Your task to perform on an android device: change the clock display to show seconds Image 0: 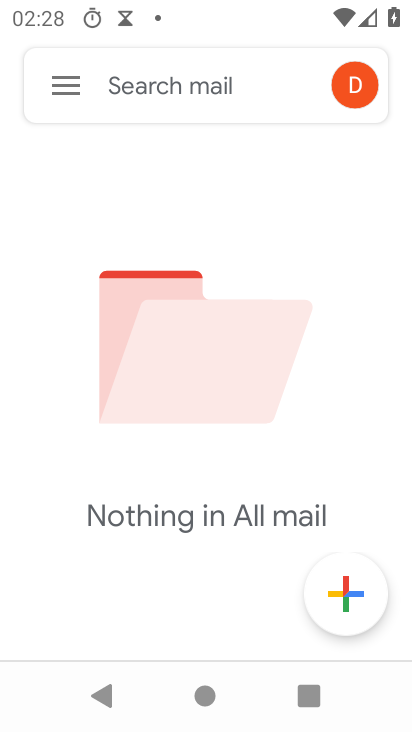
Step 0: press home button
Your task to perform on an android device: change the clock display to show seconds Image 1: 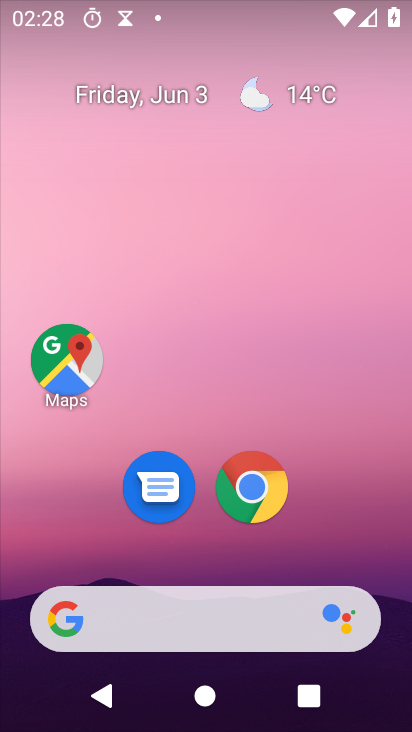
Step 1: drag from (320, 378) to (53, 4)
Your task to perform on an android device: change the clock display to show seconds Image 2: 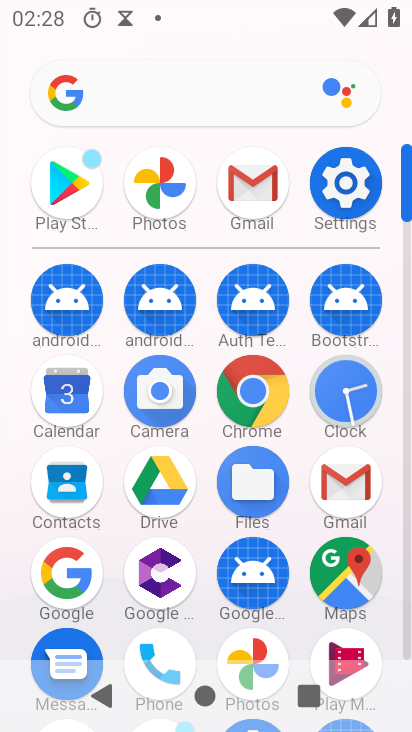
Step 2: click (347, 396)
Your task to perform on an android device: change the clock display to show seconds Image 3: 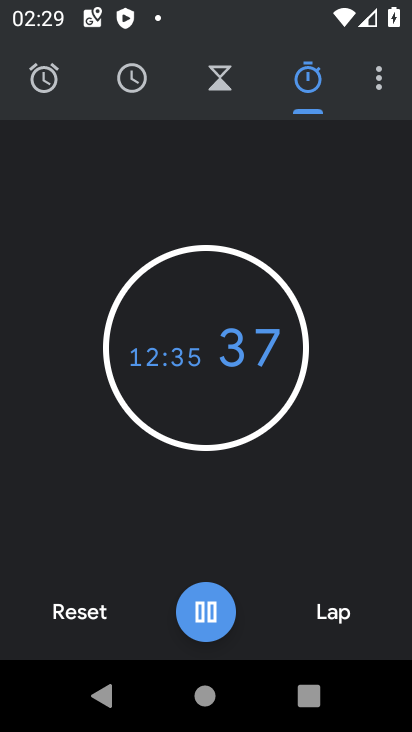
Step 3: click (384, 83)
Your task to perform on an android device: change the clock display to show seconds Image 4: 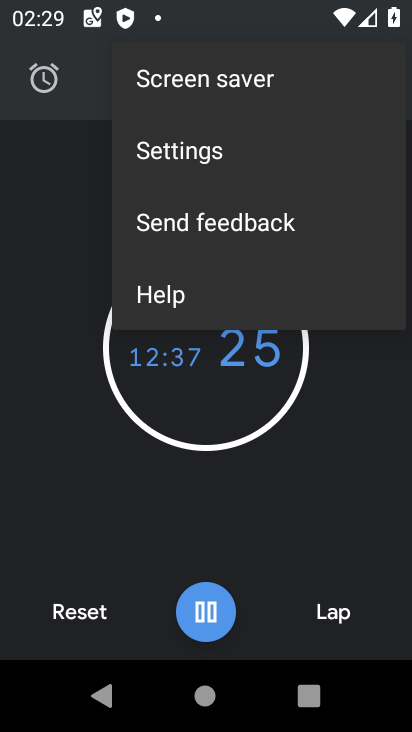
Step 4: click (230, 149)
Your task to perform on an android device: change the clock display to show seconds Image 5: 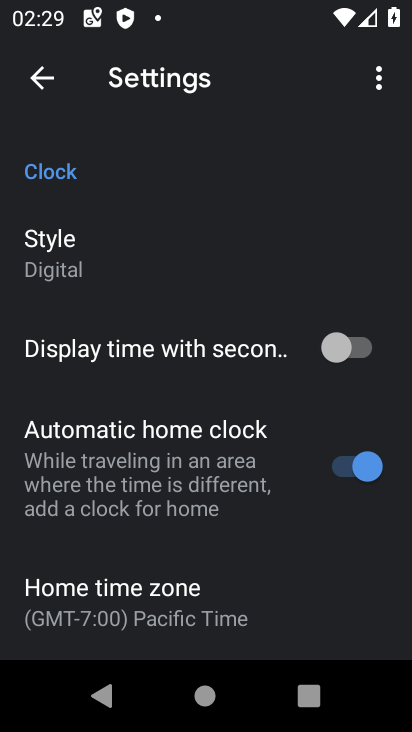
Step 5: click (363, 338)
Your task to perform on an android device: change the clock display to show seconds Image 6: 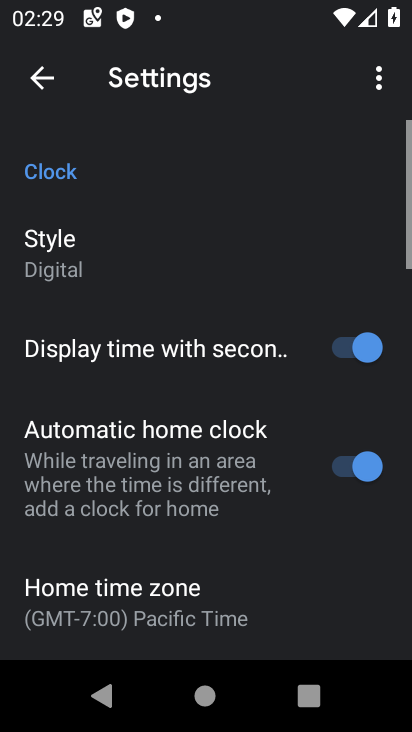
Step 6: task complete